Your task to perform on an android device: Open the Play Movies app and select the watchlist tab. Image 0: 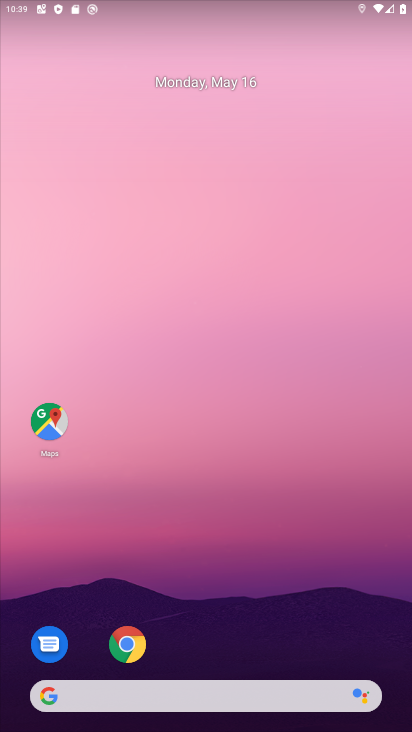
Step 0: drag from (216, 727) to (229, 212)
Your task to perform on an android device: Open the Play Movies app and select the watchlist tab. Image 1: 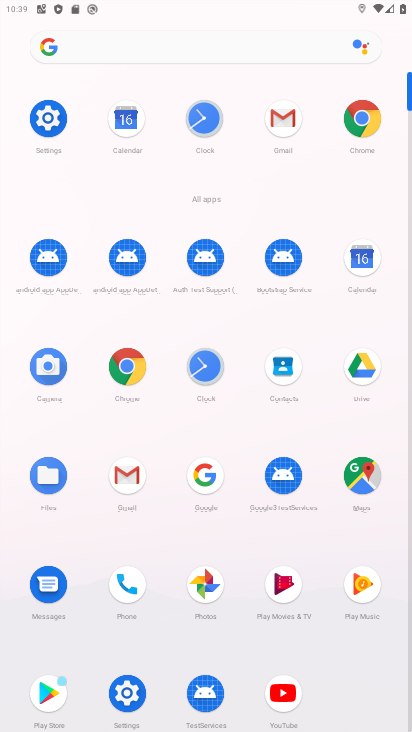
Step 1: click (282, 584)
Your task to perform on an android device: Open the Play Movies app and select the watchlist tab. Image 2: 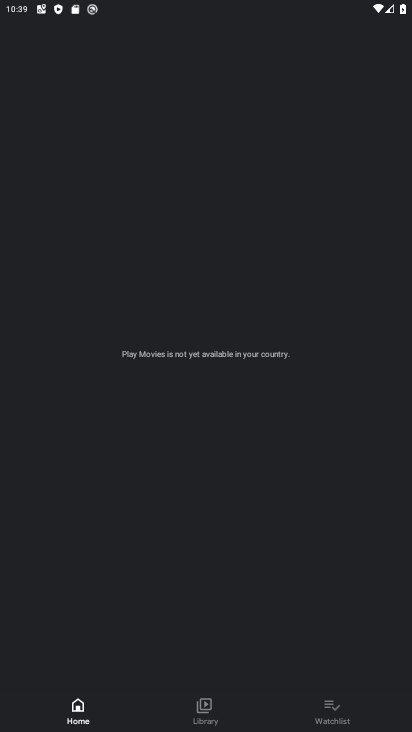
Step 2: click (332, 710)
Your task to perform on an android device: Open the Play Movies app and select the watchlist tab. Image 3: 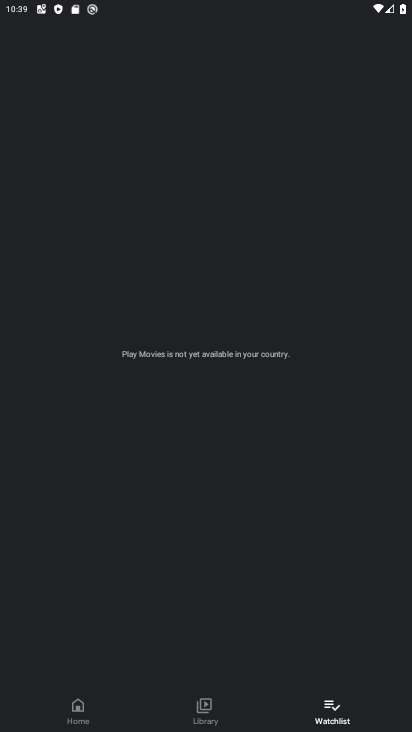
Step 3: task complete